Your task to perform on an android device: search for starred emails in the gmail app Image 0: 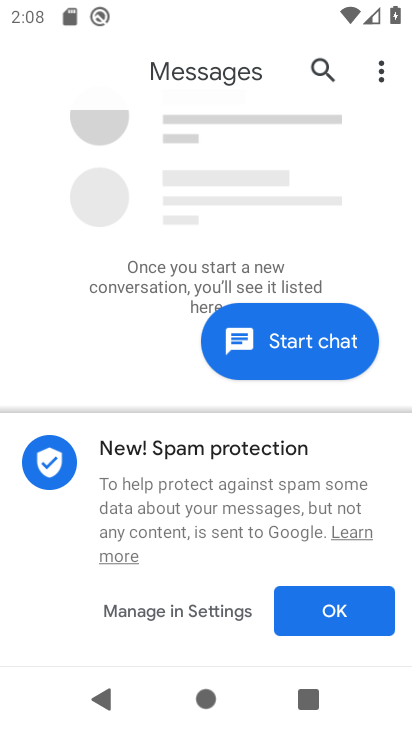
Step 0: press home button
Your task to perform on an android device: search for starred emails in the gmail app Image 1: 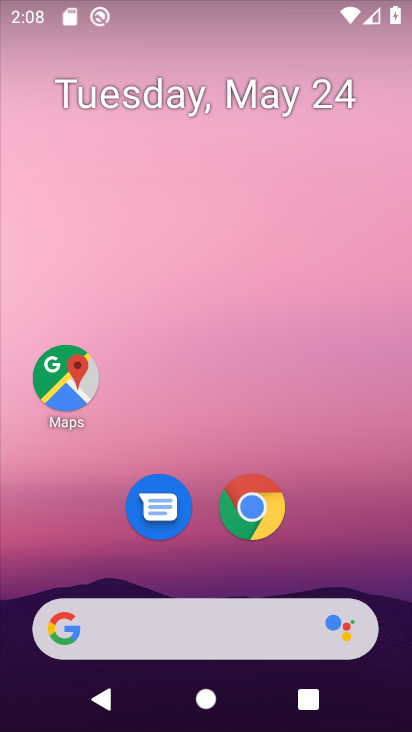
Step 1: drag from (212, 571) to (283, 1)
Your task to perform on an android device: search for starred emails in the gmail app Image 2: 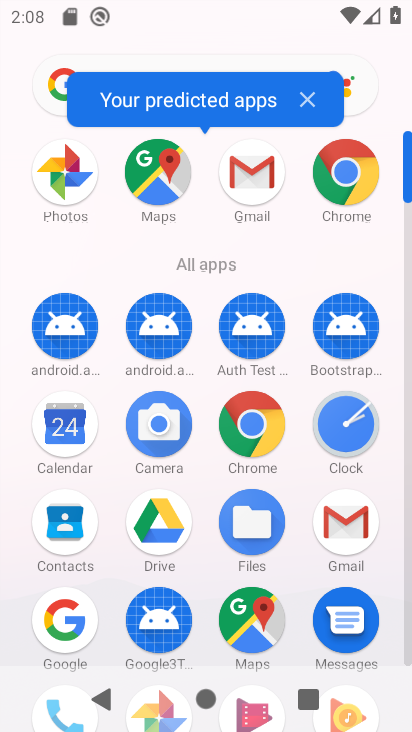
Step 2: click (247, 174)
Your task to perform on an android device: search for starred emails in the gmail app Image 3: 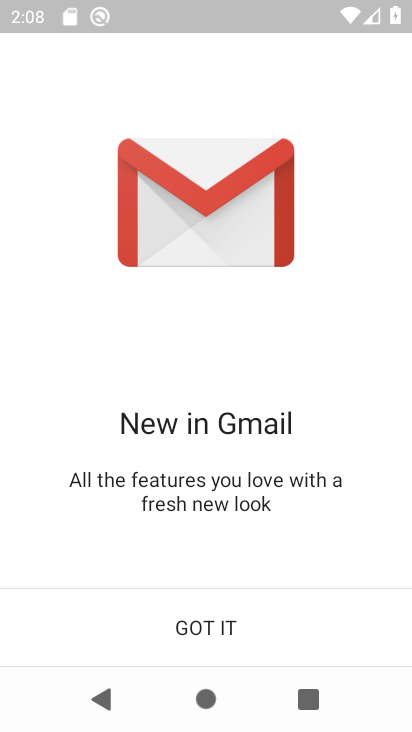
Step 3: click (207, 627)
Your task to perform on an android device: search for starred emails in the gmail app Image 4: 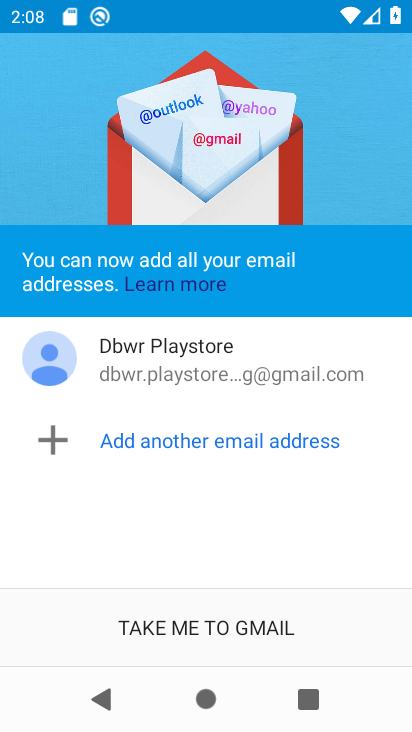
Step 4: click (210, 622)
Your task to perform on an android device: search for starred emails in the gmail app Image 5: 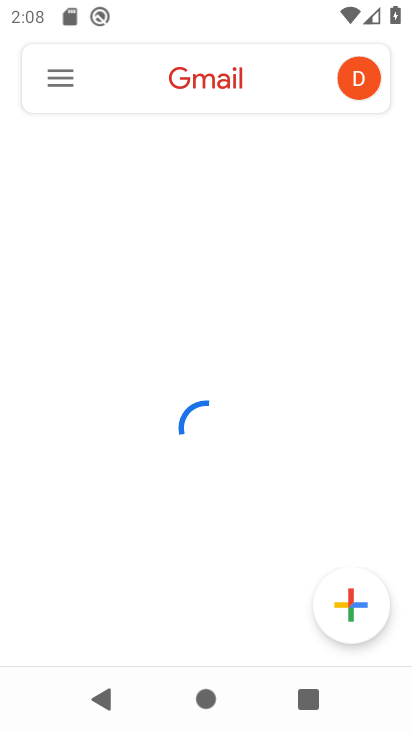
Step 5: click (63, 74)
Your task to perform on an android device: search for starred emails in the gmail app Image 6: 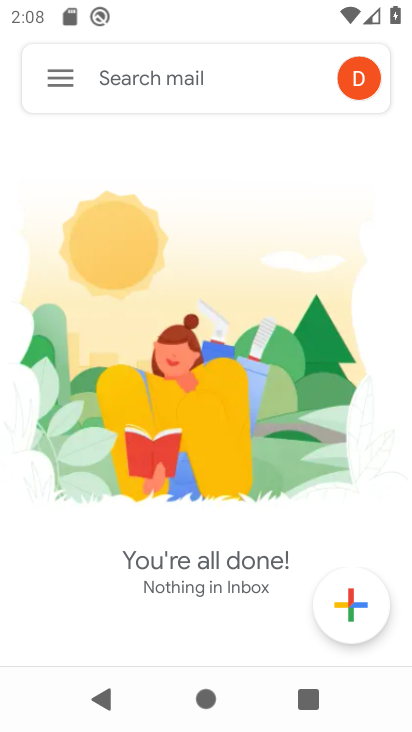
Step 6: click (54, 79)
Your task to perform on an android device: search for starred emails in the gmail app Image 7: 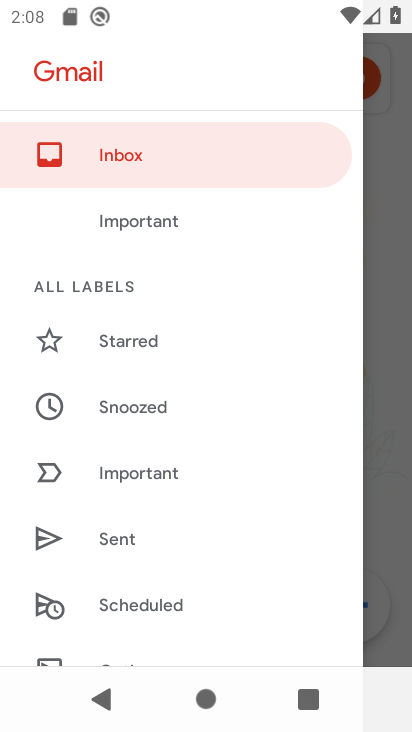
Step 7: click (145, 334)
Your task to perform on an android device: search for starred emails in the gmail app Image 8: 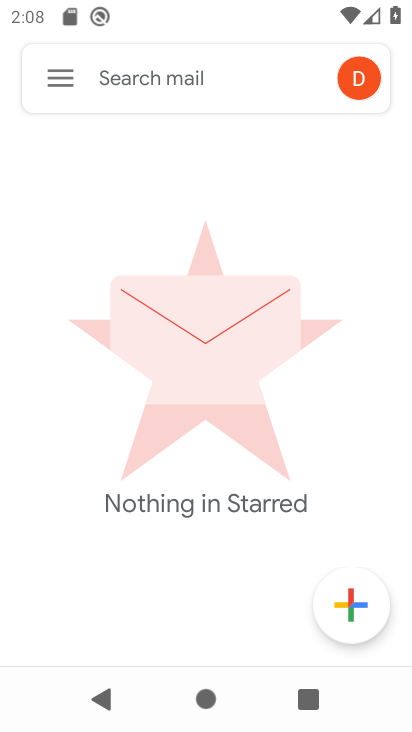
Step 8: task complete